Your task to perform on an android device: Go to wifi settings Image 0: 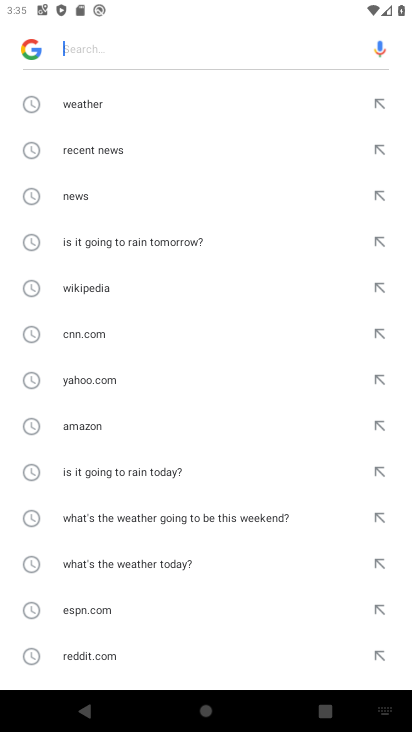
Step 0: press home button
Your task to perform on an android device: Go to wifi settings Image 1: 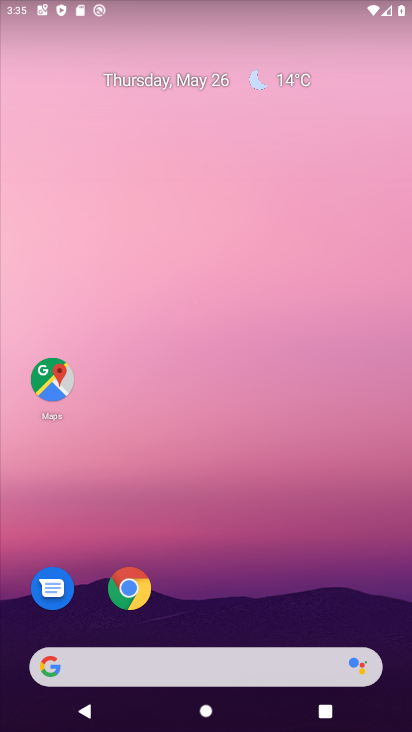
Step 1: drag from (246, 600) to (293, 227)
Your task to perform on an android device: Go to wifi settings Image 2: 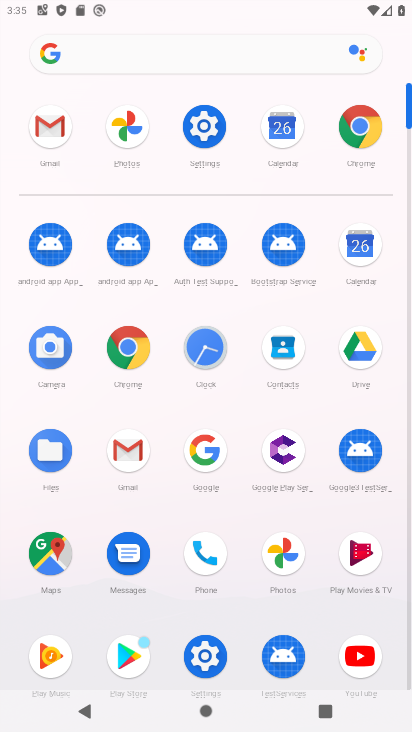
Step 2: click (192, 152)
Your task to perform on an android device: Go to wifi settings Image 3: 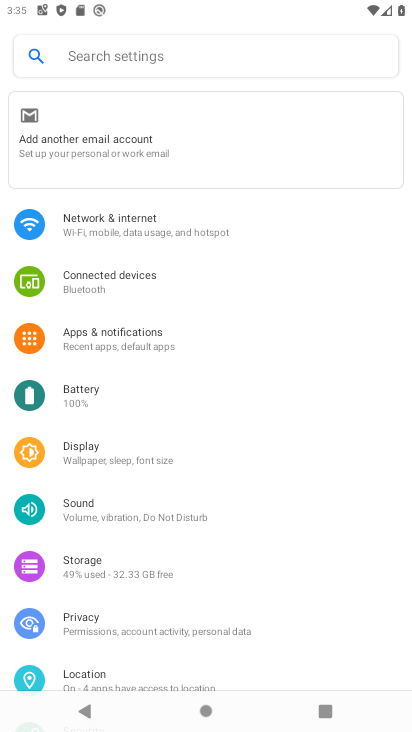
Step 3: click (172, 241)
Your task to perform on an android device: Go to wifi settings Image 4: 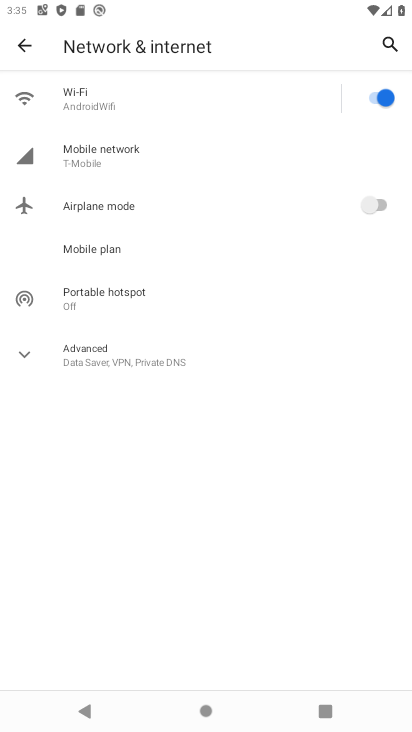
Step 4: click (200, 117)
Your task to perform on an android device: Go to wifi settings Image 5: 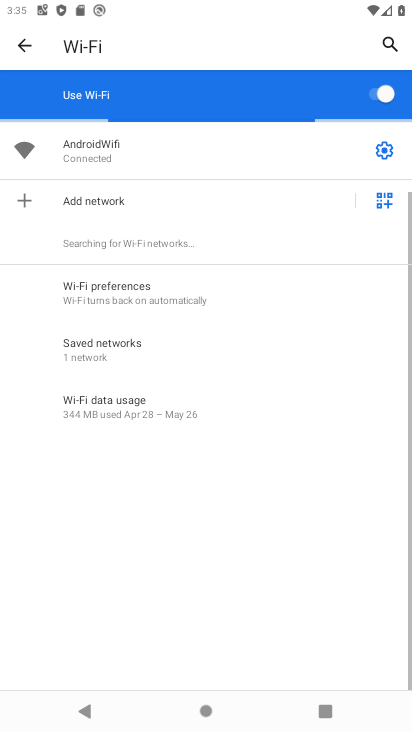
Step 5: task complete